Your task to perform on an android device: Open Chrome and go to settings Image 0: 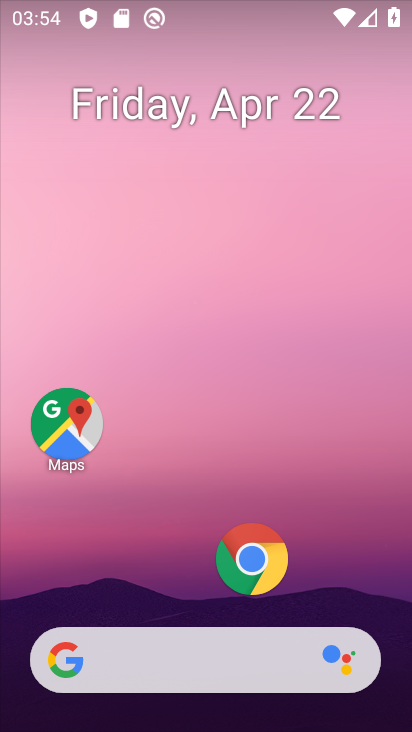
Step 0: click (225, 555)
Your task to perform on an android device: Open Chrome and go to settings Image 1: 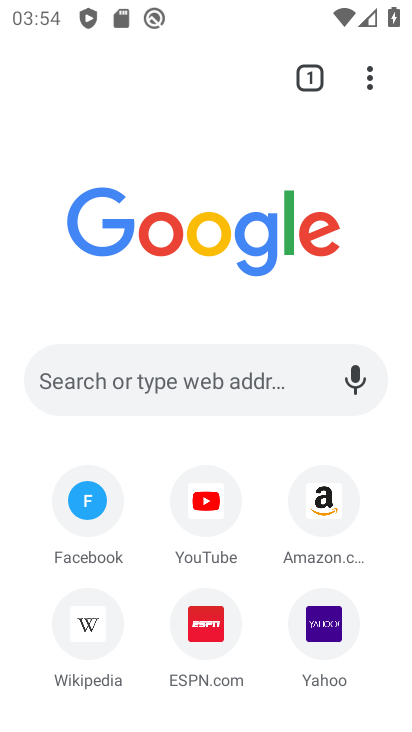
Step 1: click (376, 90)
Your task to perform on an android device: Open Chrome and go to settings Image 2: 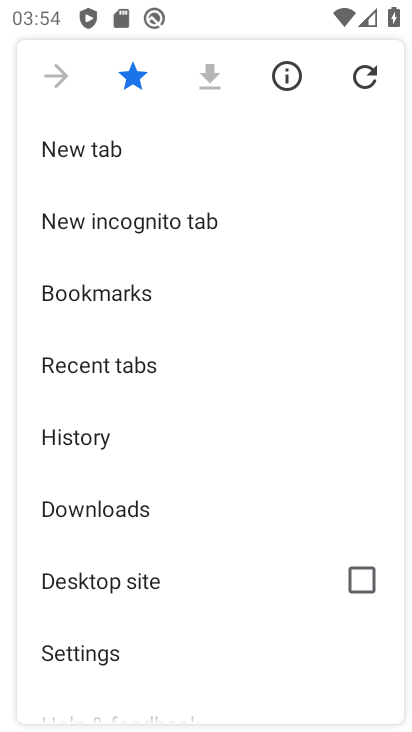
Step 2: click (88, 645)
Your task to perform on an android device: Open Chrome and go to settings Image 3: 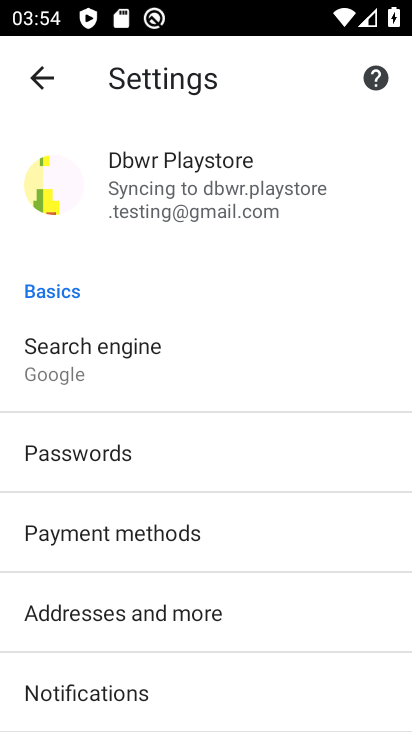
Step 3: task complete